Your task to perform on an android device: turn off notifications settings in the gmail app Image 0: 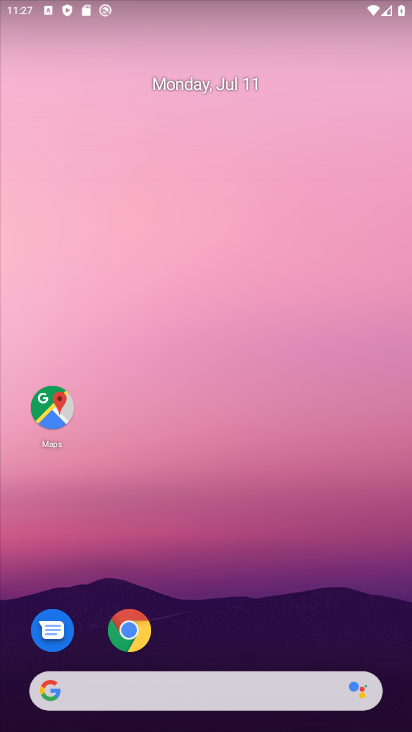
Step 0: drag from (310, 533) to (288, 41)
Your task to perform on an android device: turn off notifications settings in the gmail app Image 1: 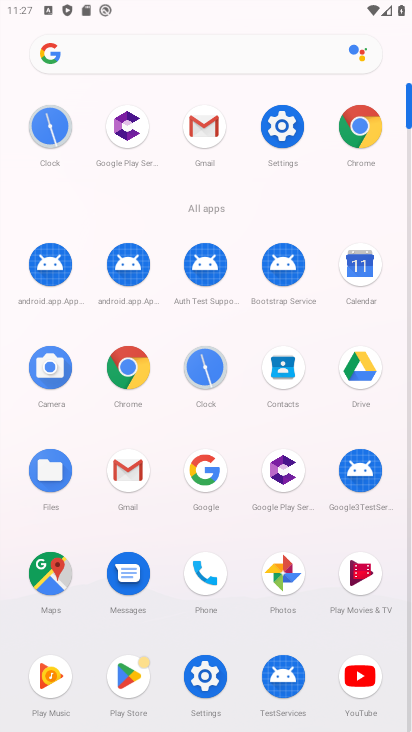
Step 1: click (126, 469)
Your task to perform on an android device: turn off notifications settings in the gmail app Image 2: 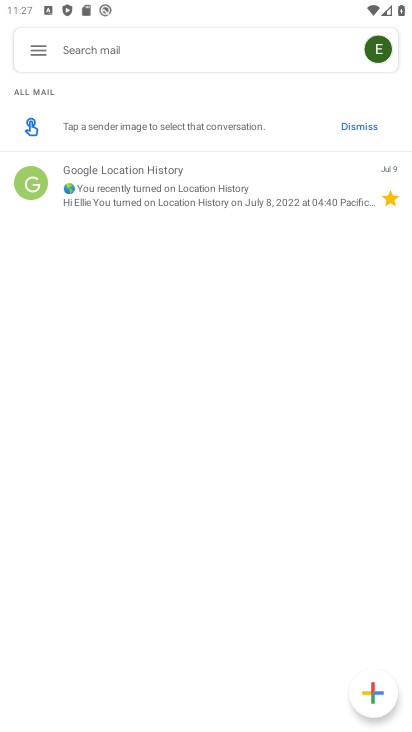
Step 2: click (36, 50)
Your task to perform on an android device: turn off notifications settings in the gmail app Image 3: 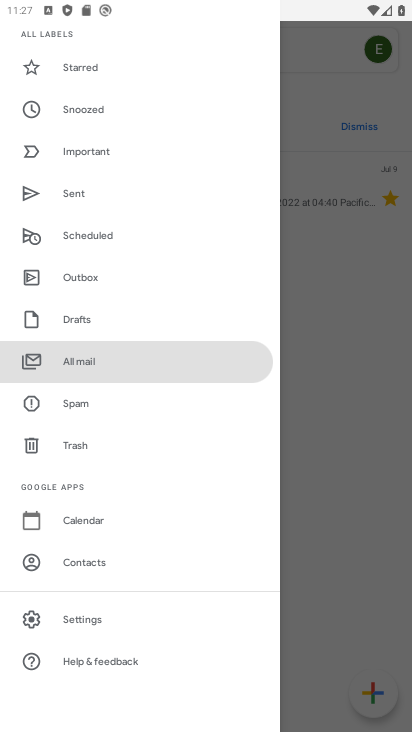
Step 3: click (81, 611)
Your task to perform on an android device: turn off notifications settings in the gmail app Image 4: 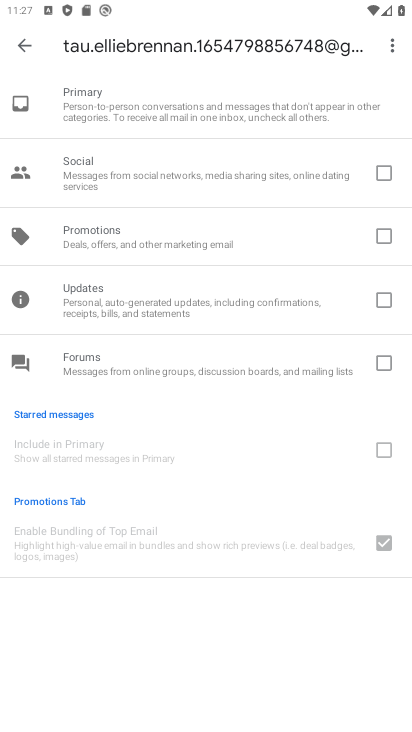
Step 4: press back button
Your task to perform on an android device: turn off notifications settings in the gmail app Image 5: 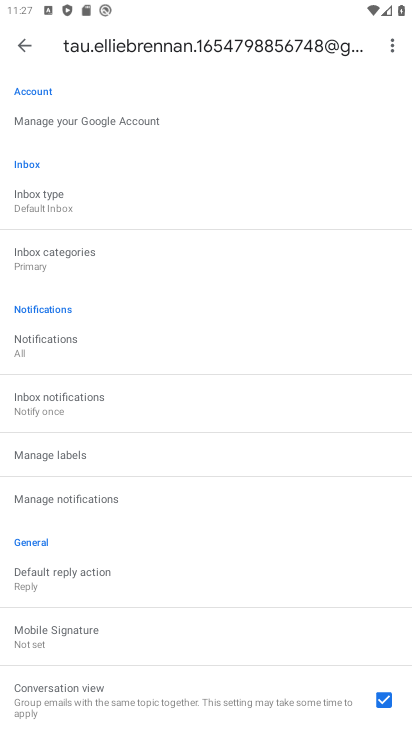
Step 5: click (72, 506)
Your task to perform on an android device: turn off notifications settings in the gmail app Image 6: 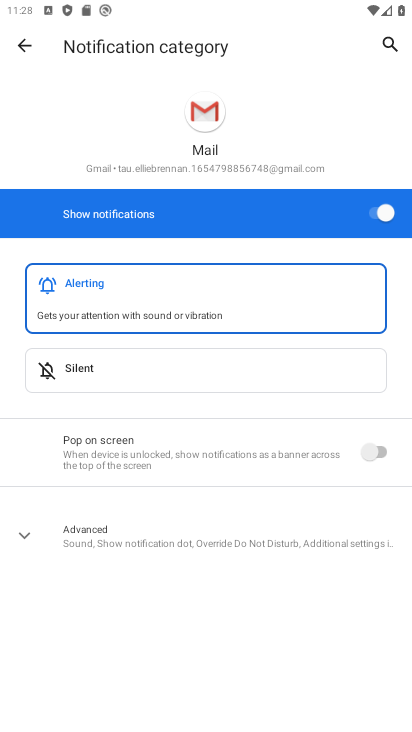
Step 6: click (370, 215)
Your task to perform on an android device: turn off notifications settings in the gmail app Image 7: 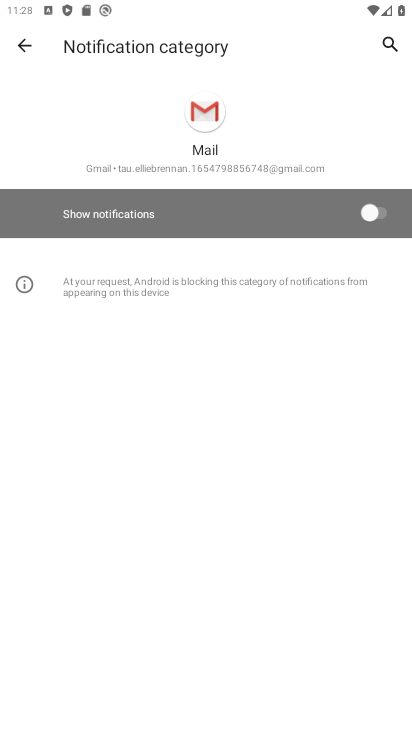
Step 7: task complete